Your task to perform on an android device: toggle pop-ups in chrome Image 0: 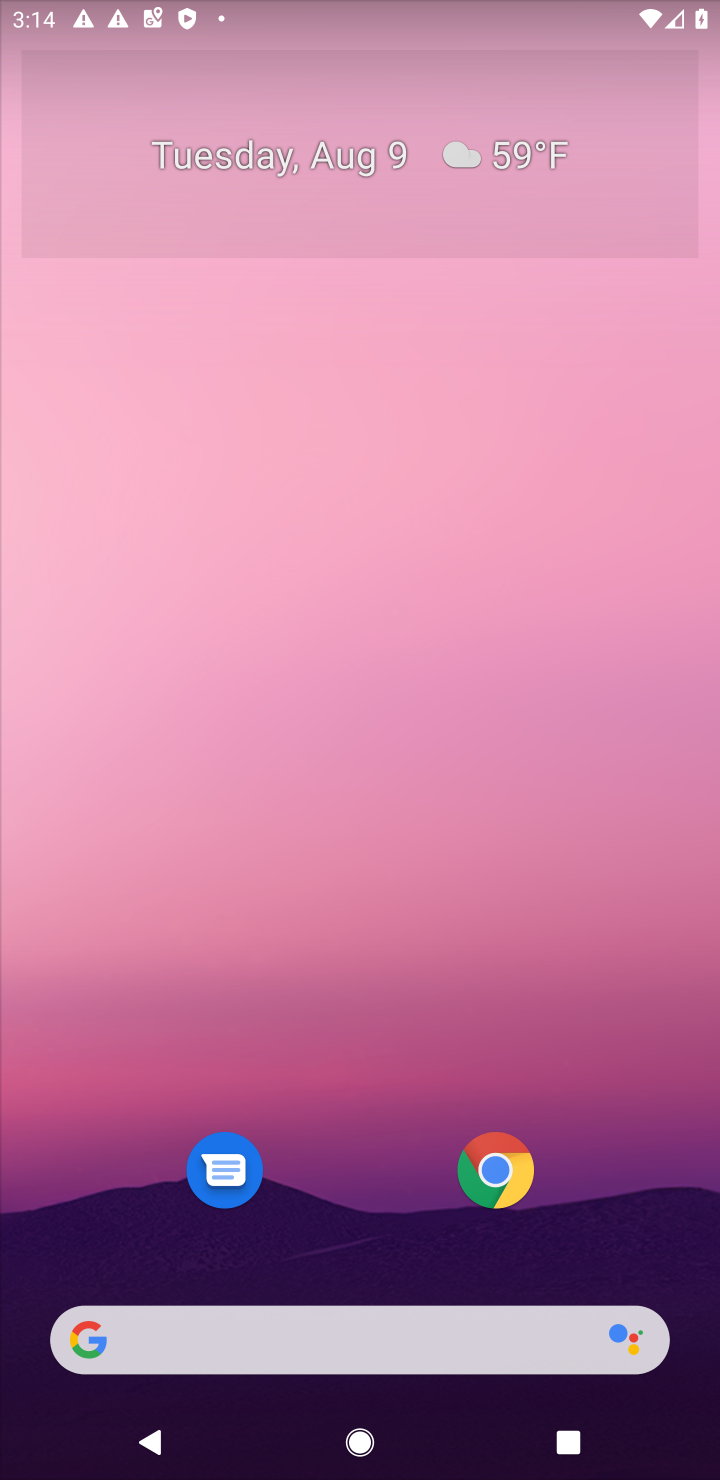
Step 0: press home button
Your task to perform on an android device: toggle pop-ups in chrome Image 1: 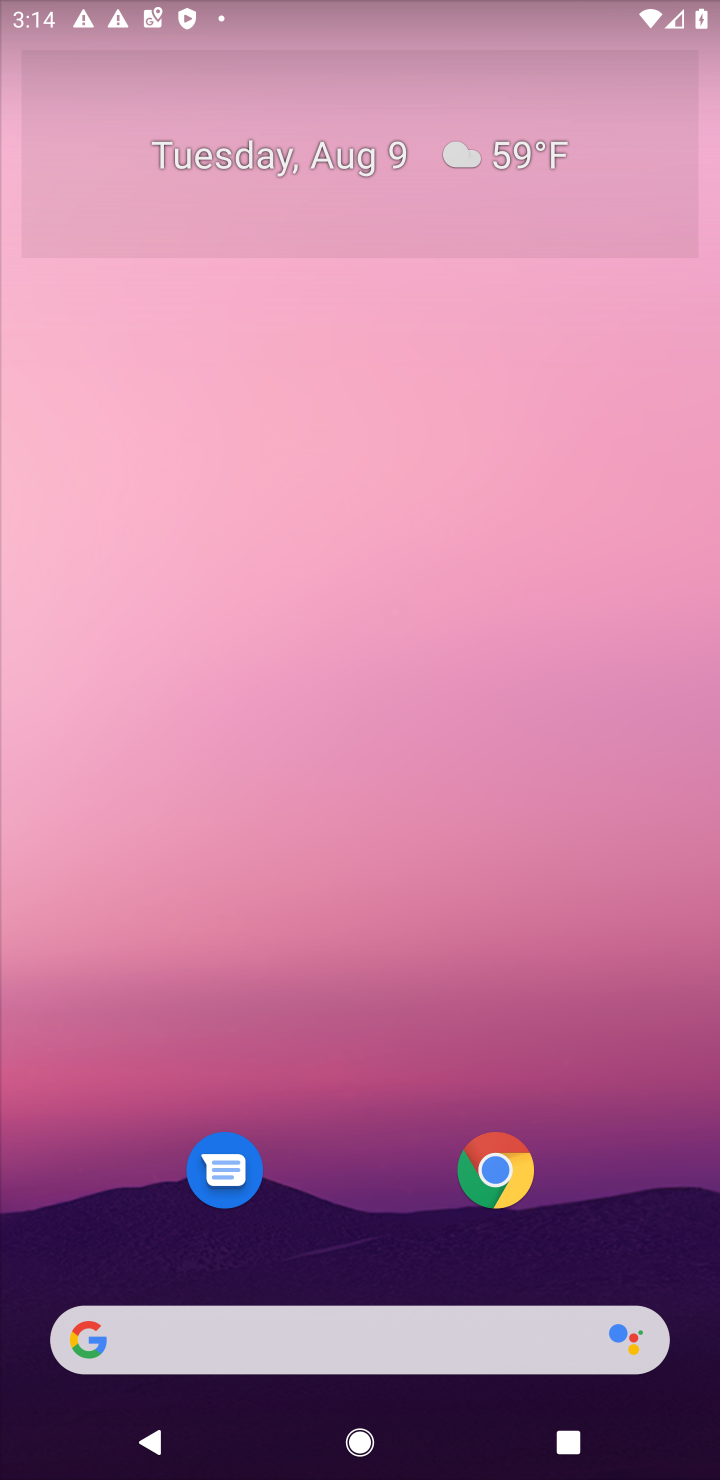
Step 1: click (481, 1163)
Your task to perform on an android device: toggle pop-ups in chrome Image 2: 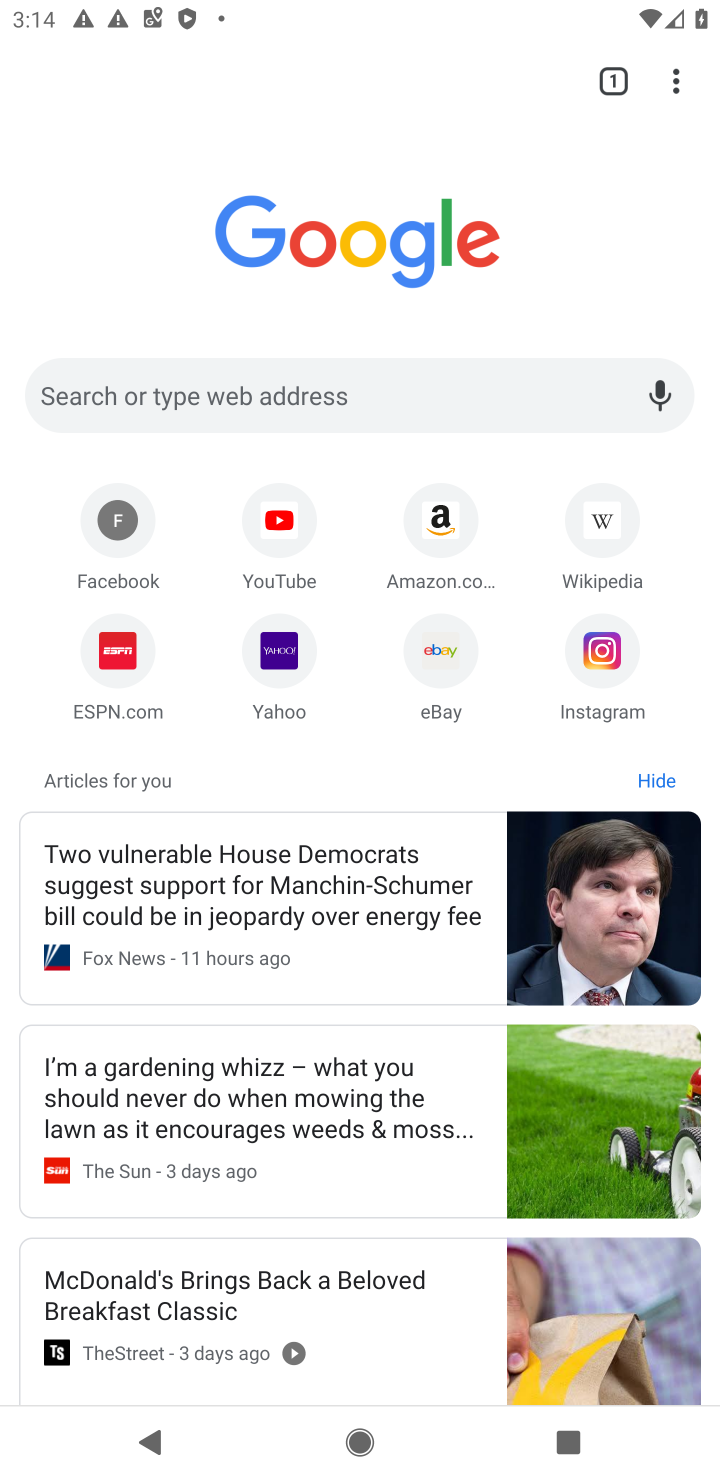
Step 2: drag from (676, 89) to (396, 682)
Your task to perform on an android device: toggle pop-ups in chrome Image 3: 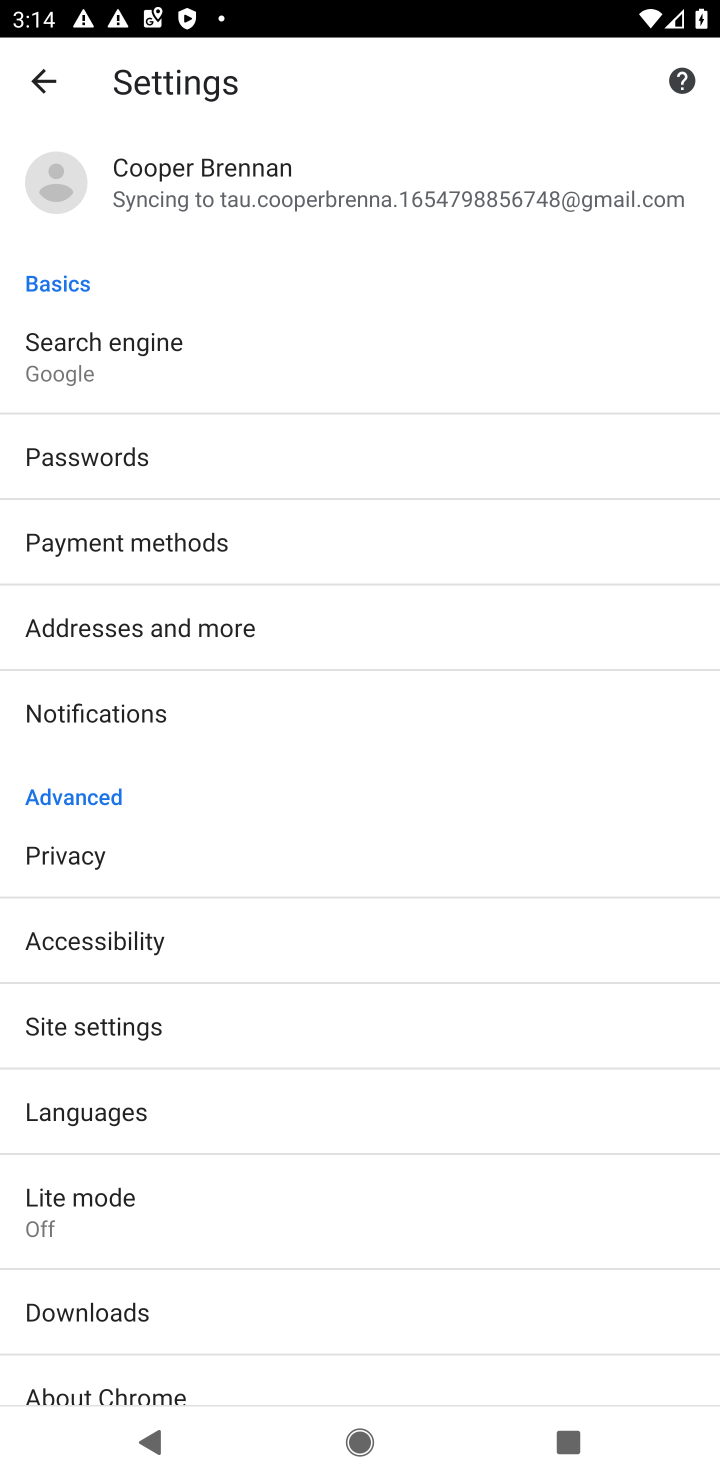
Step 3: click (138, 1027)
Your task to perform on an android device: toggle pop-ups in chrome Image 4: 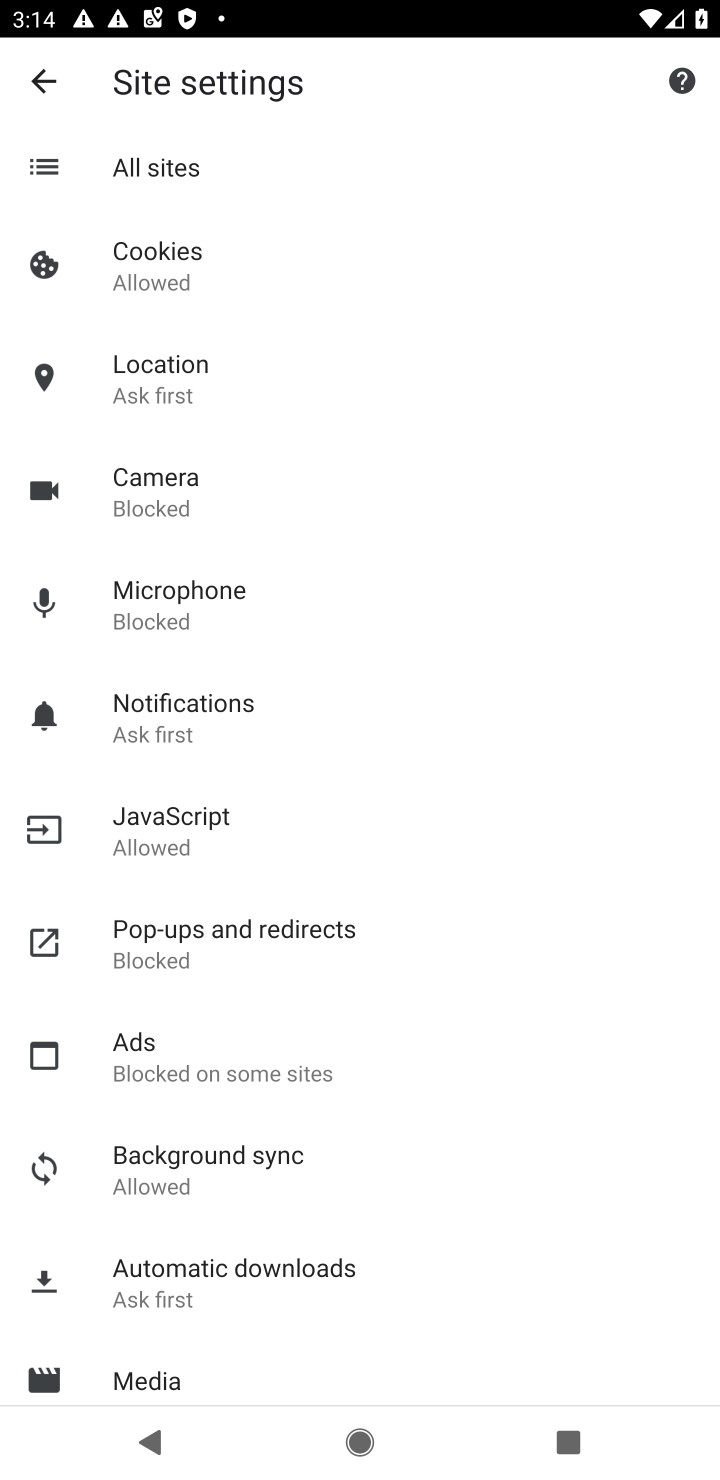
Step 4: click (246, 943)
Your task to perform on an android device: toggle pop-ups in chrome Image 5: 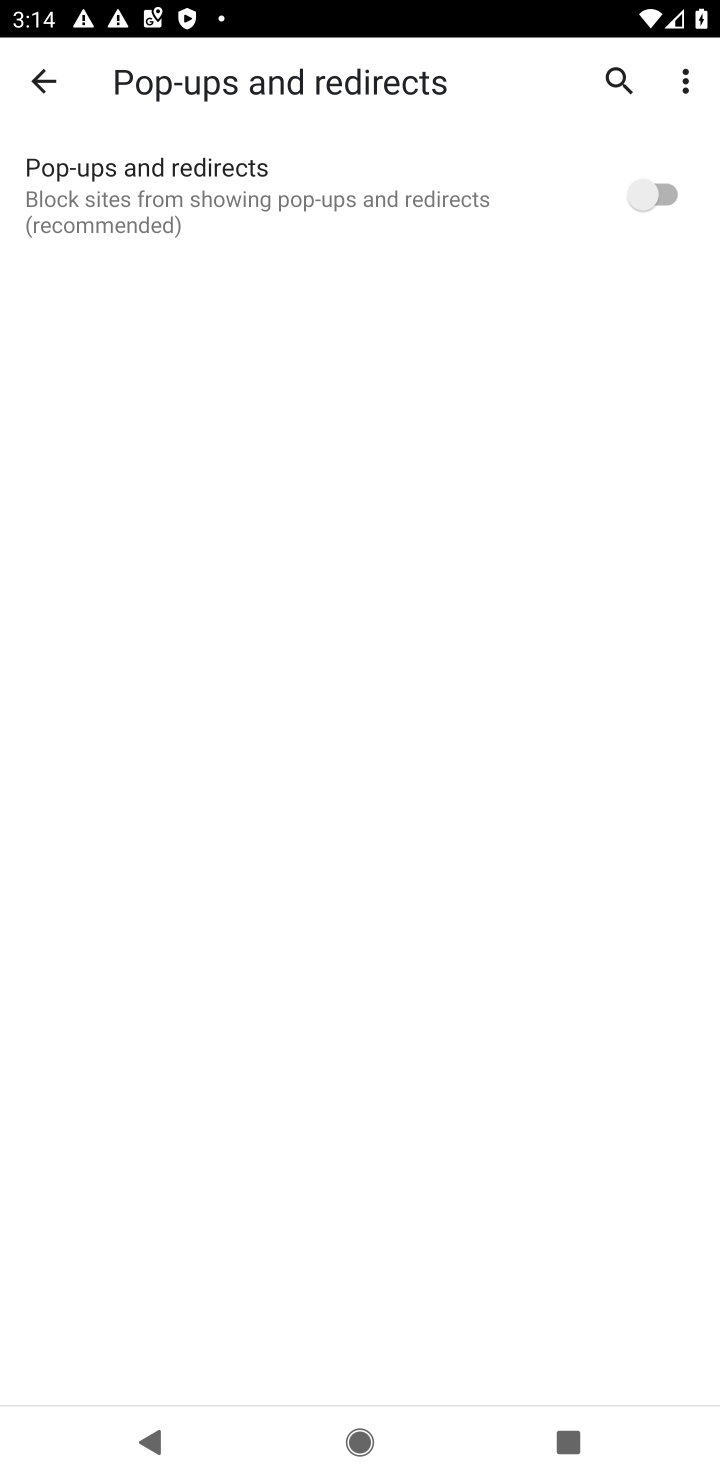
Step 5: click (648, 186)
Your task to perform on an android device: toggle pop-ups in chrome Image 6: 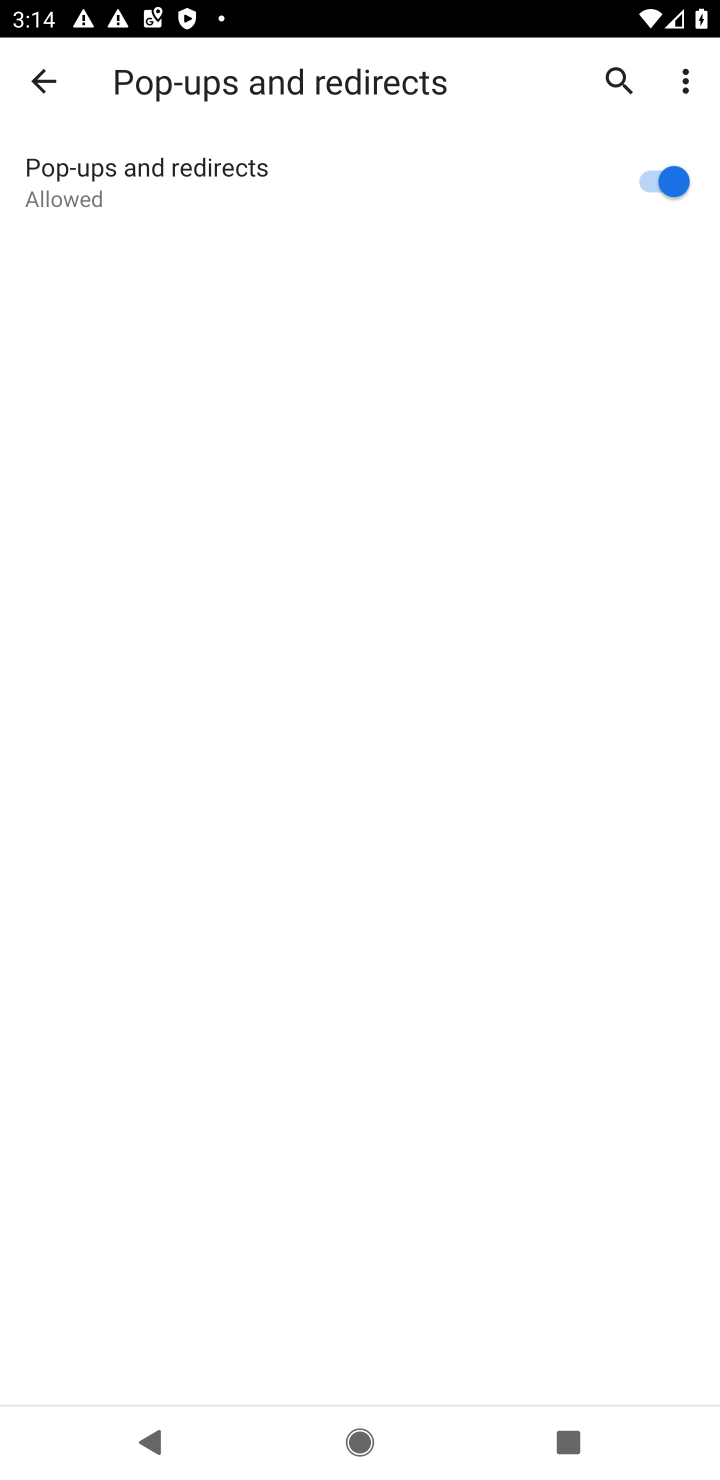
Step 6: task complete